Your task to perform on an android device: Open Youtube and go to the subscriptions tab Image 0: 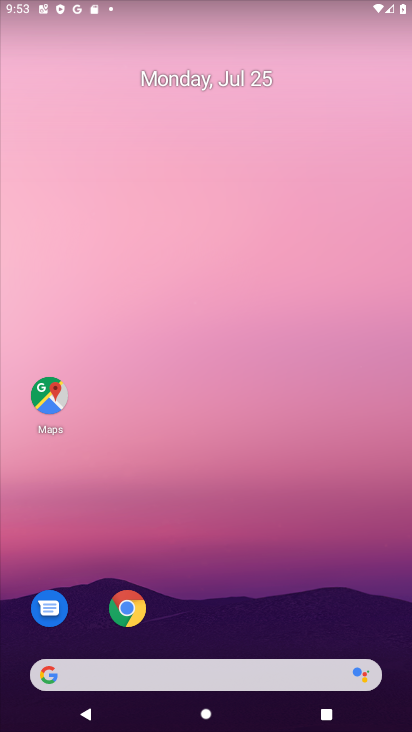
Step 0: drag from (81, 644) to (107, 289)
Your task to perform on an android device: Open Youtube and go to the subscriptions tab Image 1: 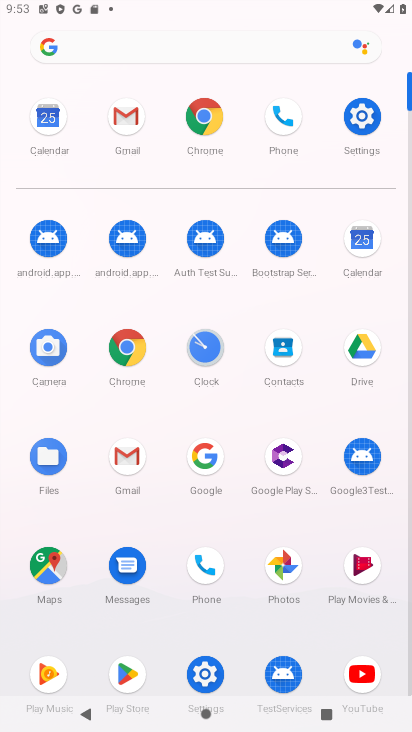
Step 1: click (353, 676)
Your task to perform on an android device: Open Youtube and go to the subscriptions tab Image 2: 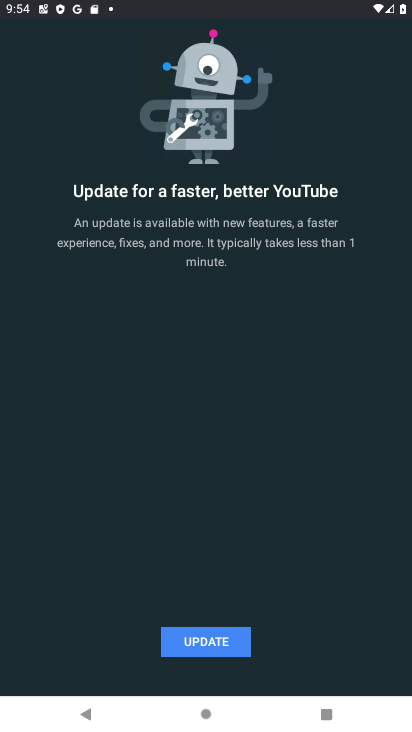
Step 2: task complete